Your task to perform on an android device: star an email in the gmail app Image 0: 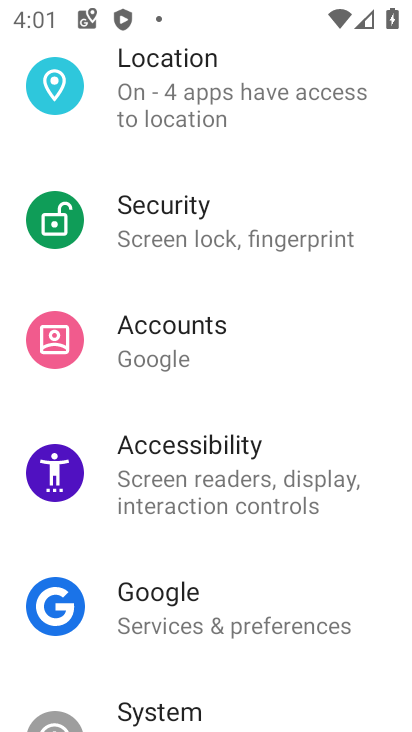
Step 0: press home button
Your task to perform on an android device: star an email in the gmail app Image 1: 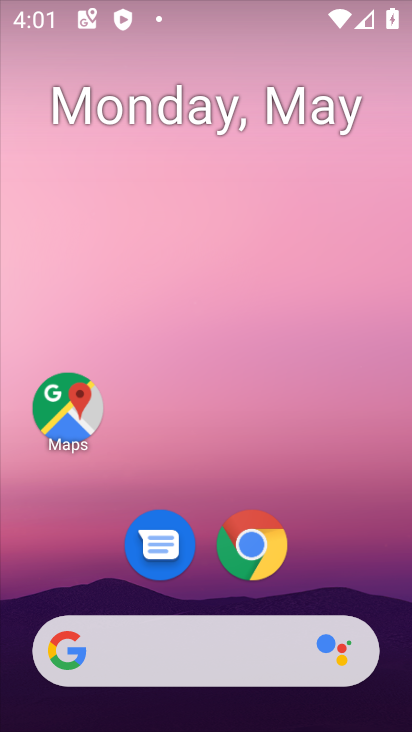
Step 1: drag from (227, 485) to (249, 59)
Your task to perform on an android device: star an email in the gmail app Image 2: 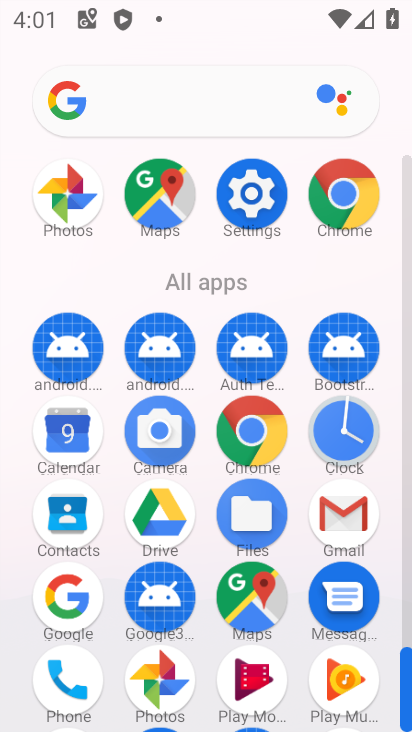
Step 2: click (335, 513)
Your task to perform on an android device: star an email in the gmail app Image 3: 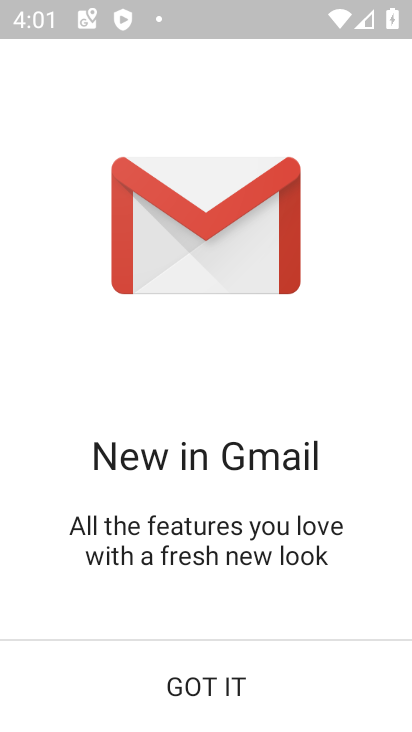
Step 3: click (217, 667)
Your task to perform on an android device: star an email in the gmail app Image 4: 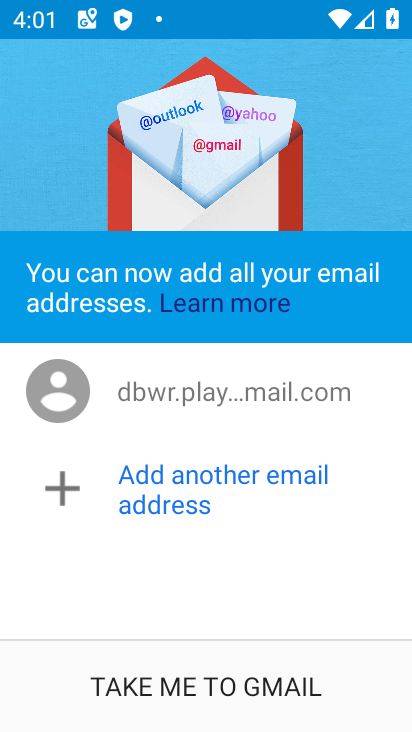
Step 4: click (155, 676)
Your task to perform on an android device: star an email in the gmail app Image 5: 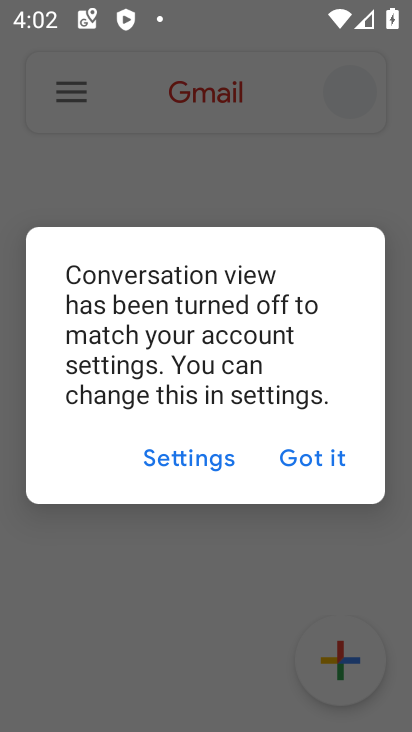
Step 5: click (294, 467)
Your task to perform on an android device: star an email in the gmail app Image 6: 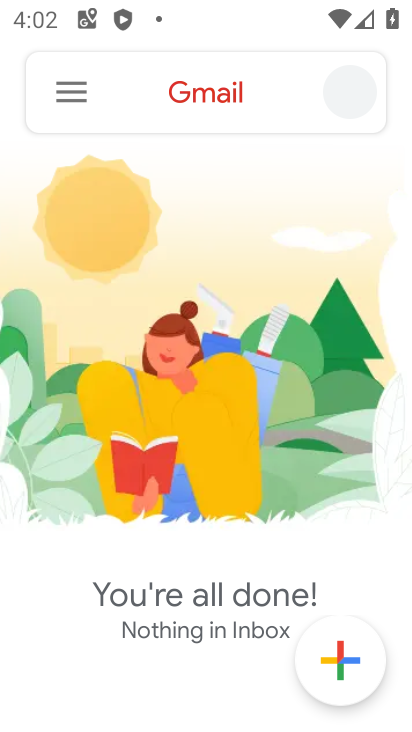
Step 6: click (69, 97)
Your task to perform on an android device: star an email in the gmail app Image 7: 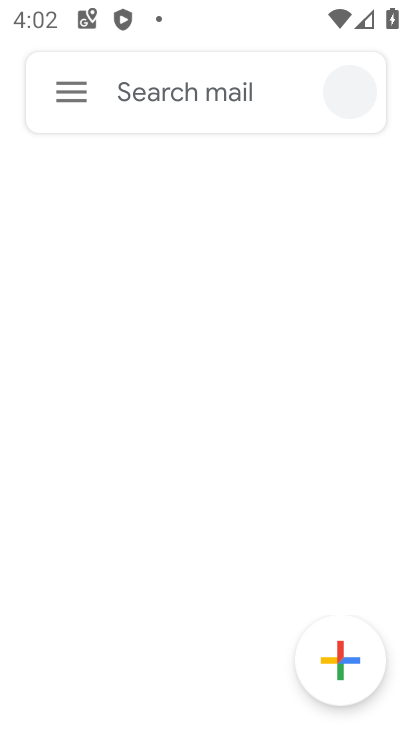
Step 7: drag from (163, 614) to (153, 237)
Your task to perform on an android device: star an email in the gmail app Image 8: 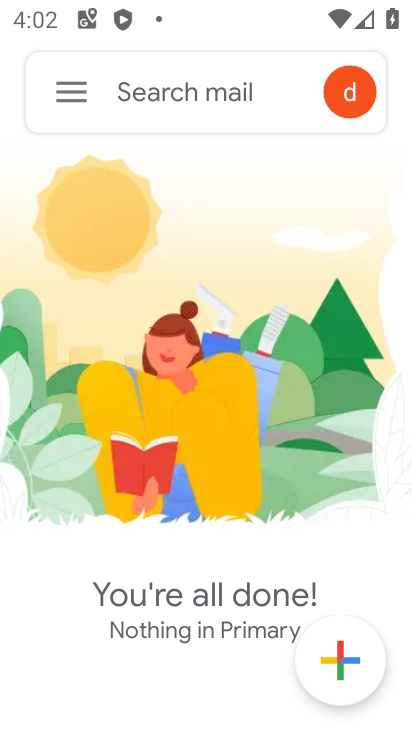
Step 8: click (81, 92)
Your task to perform on an android device: star an email in the gmail app Image 9: 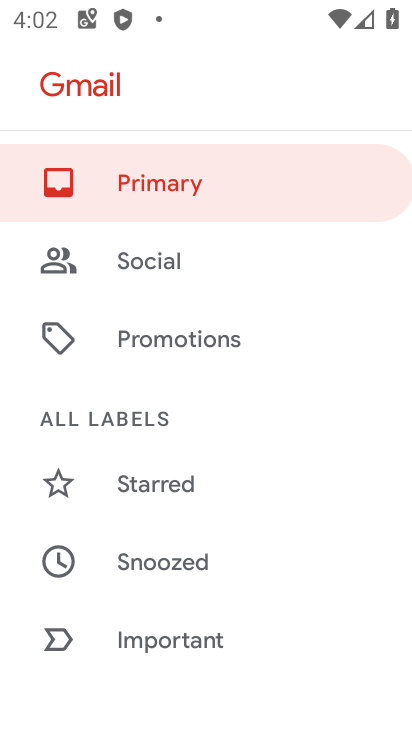
Step 9: drag from (114, 597) to (201, 169)
Your task to perform on an android device: star an email in the gmail app Image 10: 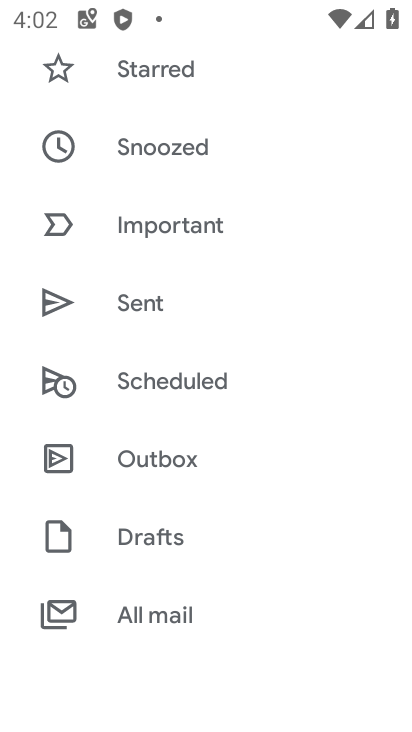
Step 10: click (147, 620)
Your task to perform on an android device: star an email in the gmail app Image 11: 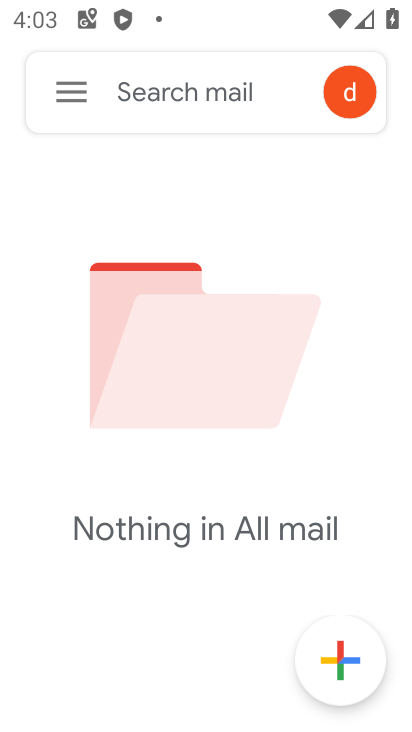
Step 11: task complete